Your task to perform on an android device: uninstall "Truecaller" Image 0: 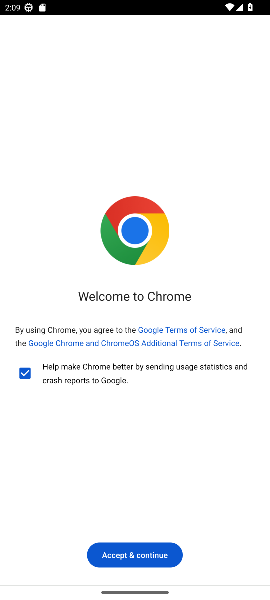
Step 0: press home button
Your task to perform on an android device: uninstall "Truecaller" Image 1: 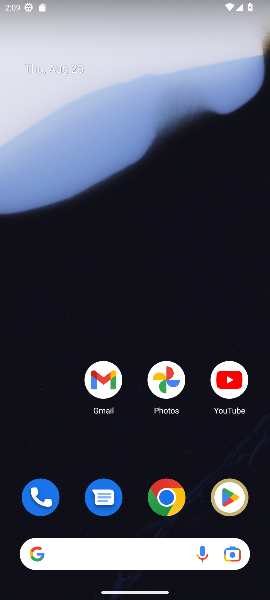
Step 1: drag from (144, 506) to (116, 10)
Your task to perform on an android device: uninstall "Truecaller" Image 2: 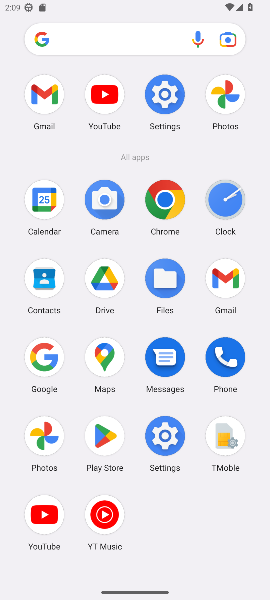
Step 2: click (97, 431)
Your task to perform on an android device: uninstall "Truecaller" Image 3: 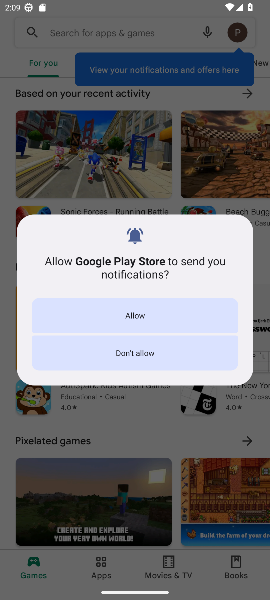
Step 3: click (116, 32)
Your task to perform on an android device: uninstall "Truecaller" Image 4: 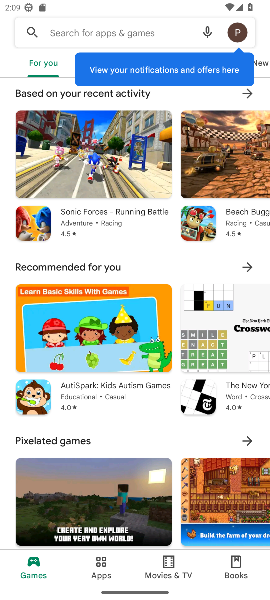
Step 4: click (114, 17)
Your task to perform on an android device: uninstall "Truecaller" Image 5: 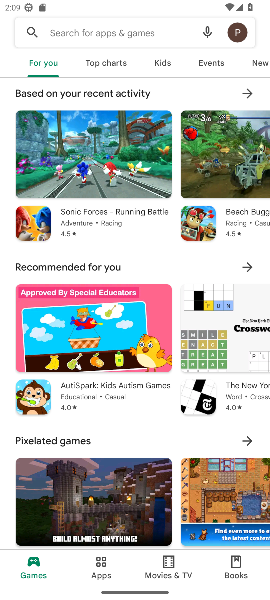
Step 5: type "Truecaller "
Your task to perform on an android device: uninstall "Truecaller" Image 6: 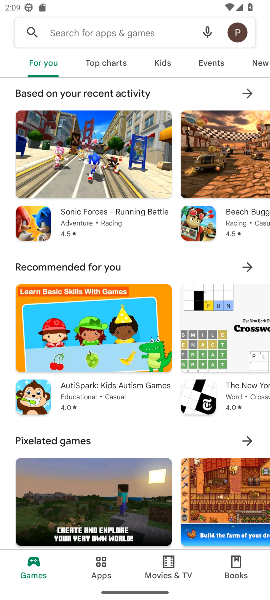
Step 6: click (113, 29)
Your task to perform on an android device: uninstall "Truecaller" Image 7: 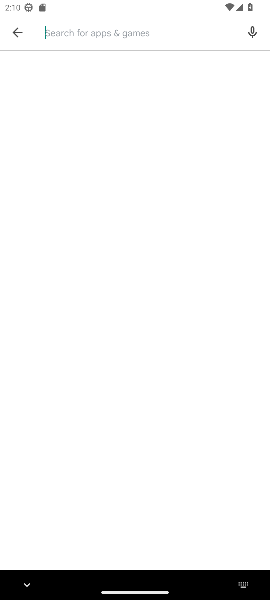
Step 7: type "truecaller "
Your task to perform on an android device: uninstall "Truecaller" Image 8: 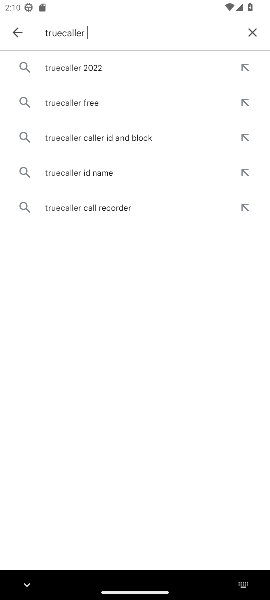
Step 8: click (60, 100)
Your task to perform on an android device: uninstall "Truecaller" Image 9: 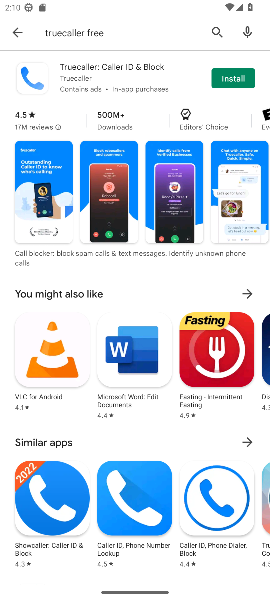
Step 9: click (109, 79)
Your task to perform on an android device: uninstall "Truecaller" Image 10: 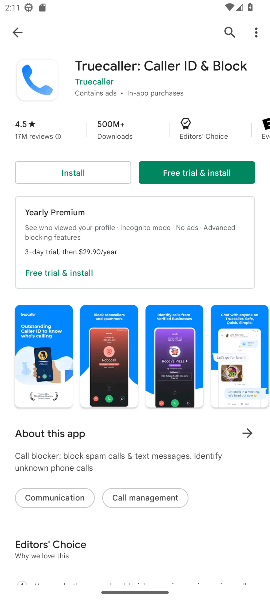
Step 10: task complete